Your task to perform on an android device: Open the calendar app, open the side menu, and click the "Day" option Image 0: 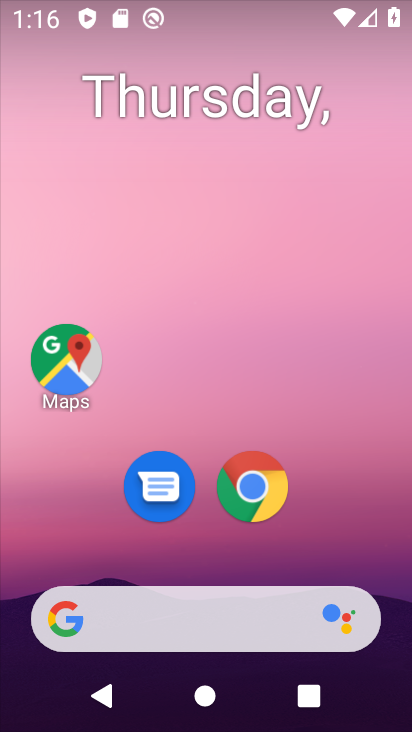
Step 0: drag from (400, 536) to (268, 61)
Your task to perform on an android device: Open the calendar app, open the side menu, and click the "Day" option Image 1: 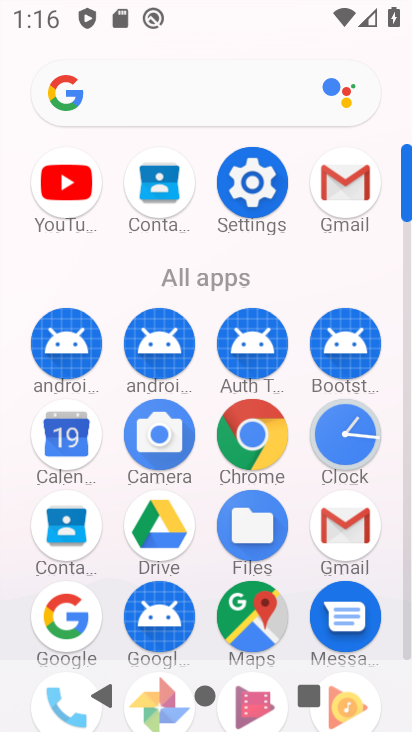
Step 1: click (78, 434)
Your task to perform on an android device: Open the calendar app, open the side menu, and click the "Day" option Image 2: 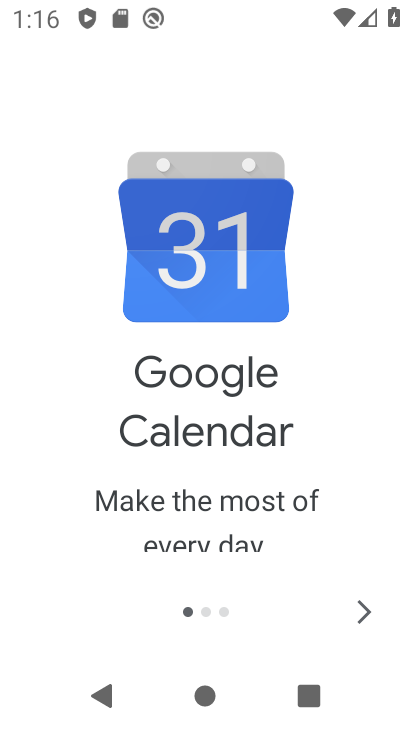
Step 2: click (356, 606)
Your task to perform on an android device: Open the calendar app, open the side menu, and click the "Day" option Image 3: 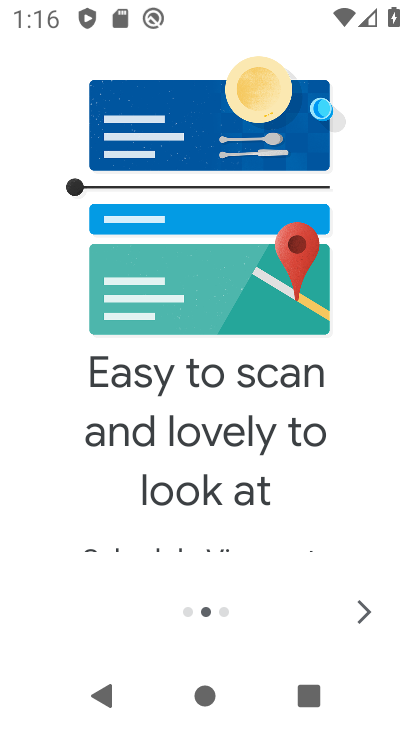
Step 3: click (356, 606)
Your task to perform on an android device: Open the calendar app, open the side menu, and click the "Day" option Image 4: 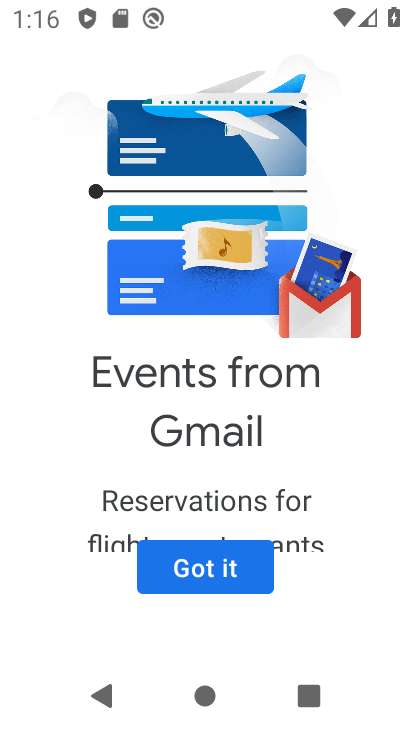
Step 4: click (208, 562)
Your task to perform on an android device: Open the calendar app, open the side menu, and click the "Day" option Image 5: 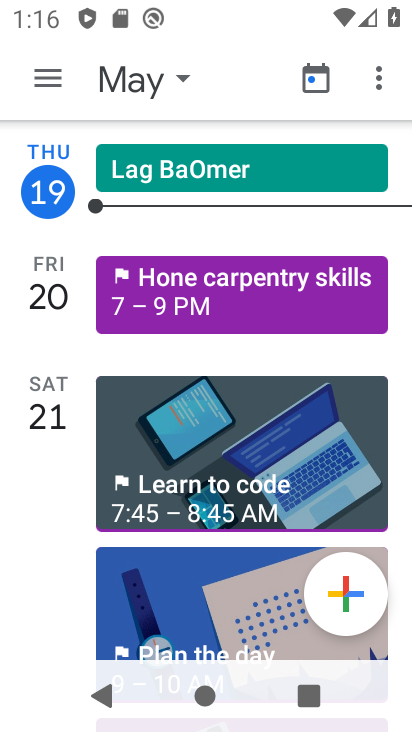
Step 5: click (52, 79)
Your task to perform on an android device: Open the calendar app, open the side menu, and click the "Day" option Image 6: 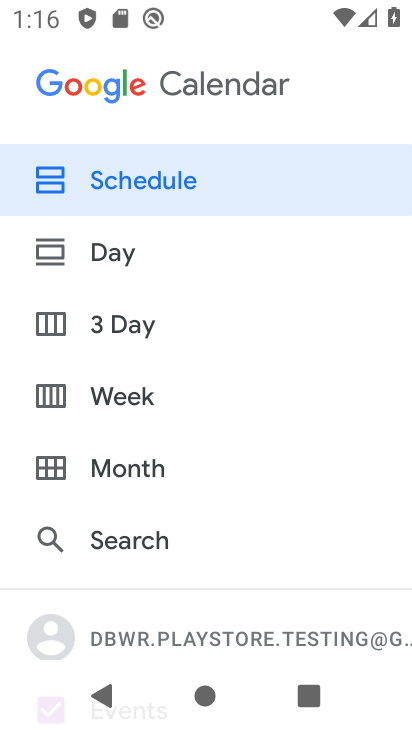
Step 6: click (141, 249)
Your task to perform on an android device: Open the calendar app, open the side menu, and click the "Day" option Image 7: 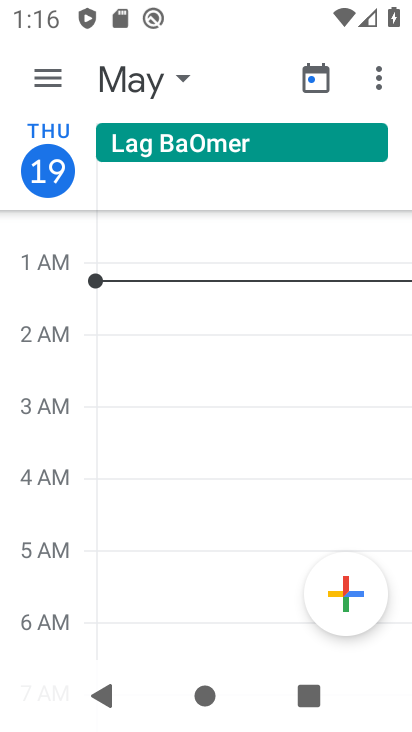
Step 7: task complete